Your task to perform on an android device: Go to Yahoo.com Image 0: 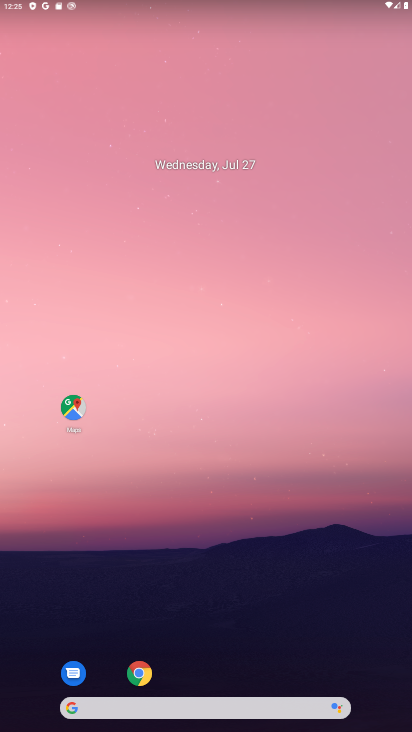
Step 0: click (135, 678)
Your task to perform on an android device: Go to Yahoo.com Image 1: 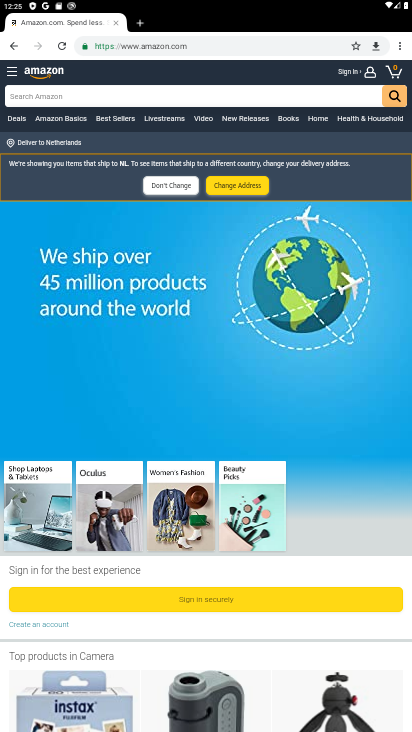
Step 1: click (146, 43)
Your task to perform on an android device: Go to Yahoo.com Image 2: 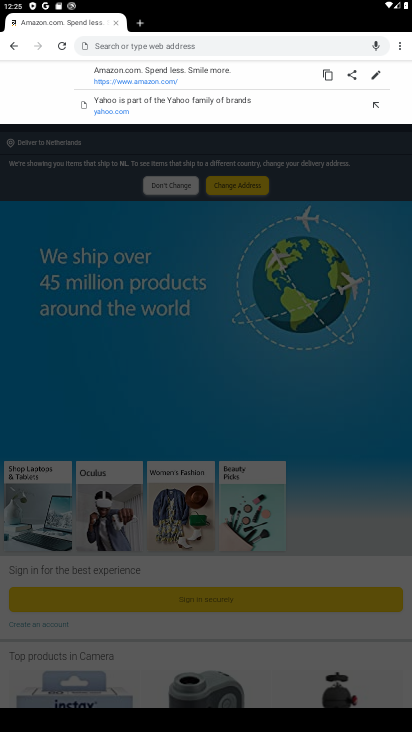
Step 2: click (159, 112)
Your task to perform on an android device: Go to Yahoo.com Image 3: 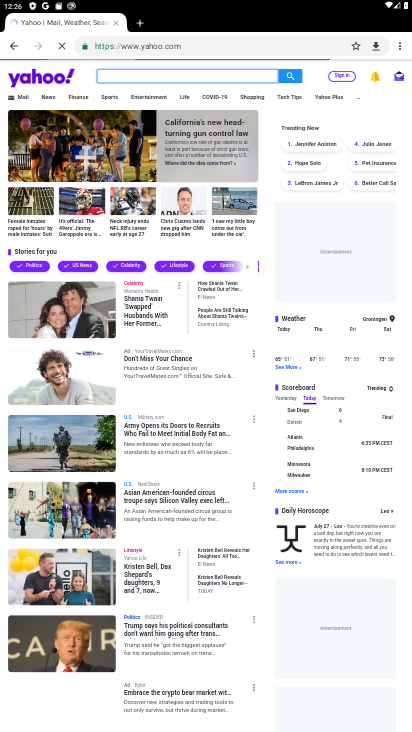
Step 3: task complete